Your task to perform on an android device: Show me the alarms in the clock app Image 0: 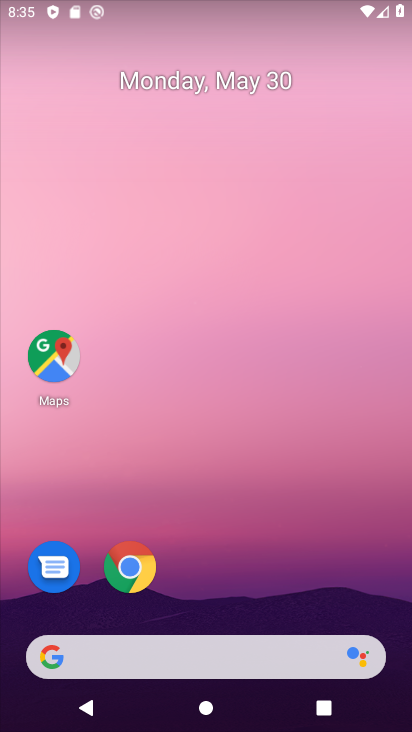
Step 0: drag from (235, 600) to (264, 62)
Your task to perform on an android device: Show me the alarms in the clock app Image 1: 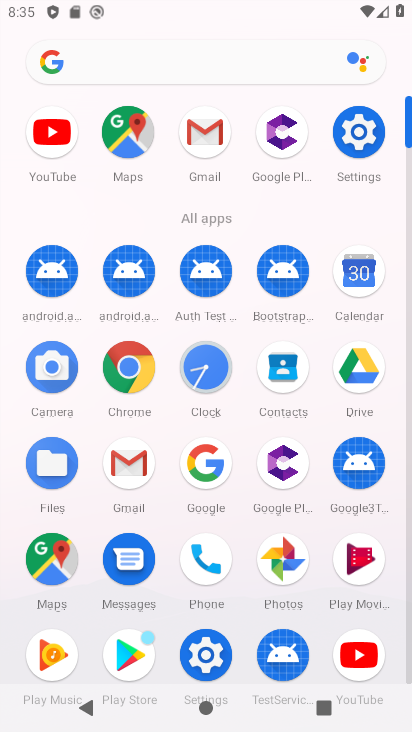
Step 1: click (200, 362)
Your task to perform on an android device: Show me the alarms in the clock app Image 2: 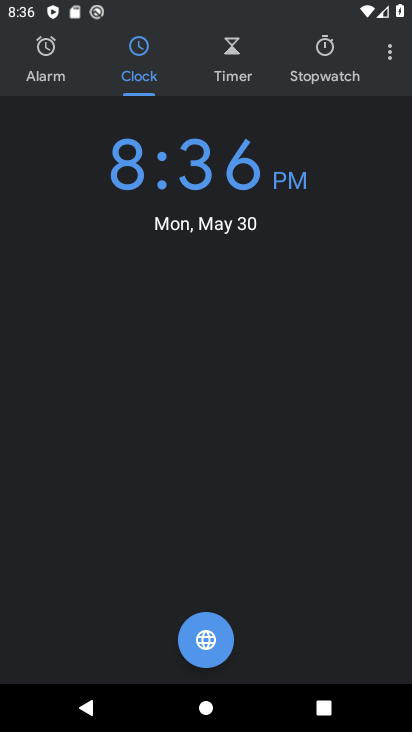
Step 2: click (62, 65)
Your task to perform on an android device: Show me the alarms in the clock app Image 3: 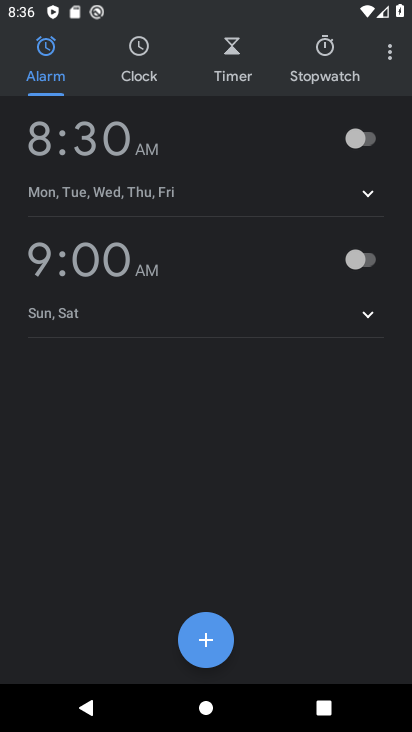
Step 3: task complete